Your task to perform on an android device: Go to Wikipedia Image 0: 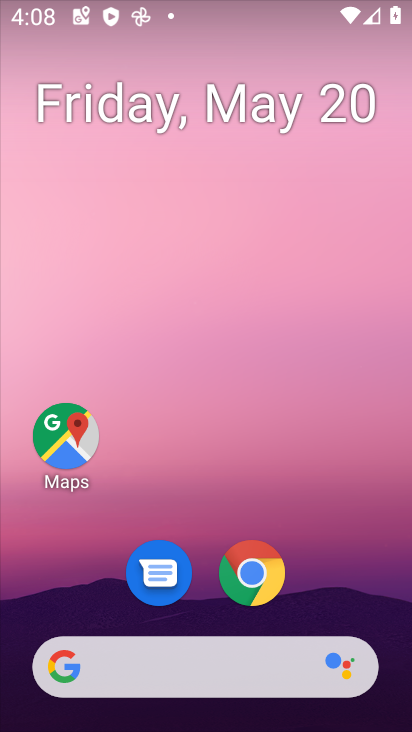
Step 0: click (252, 573)
Your task to perform on an android device: Go to Wikipedia Image 1: 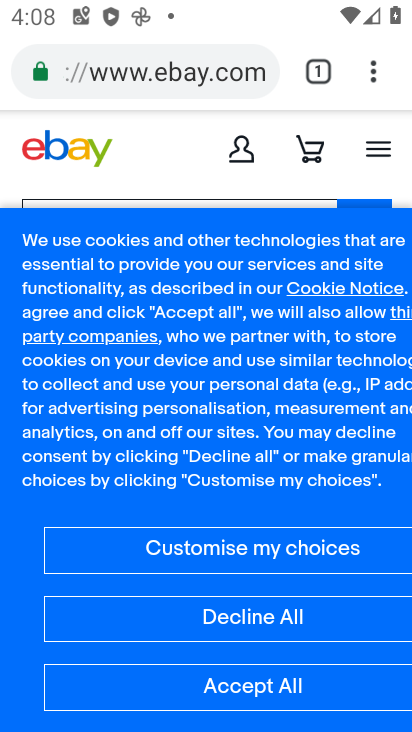
Step 1: click (171, 68)
Your task to perform on an android device: Go to Wikipedia Image 2: 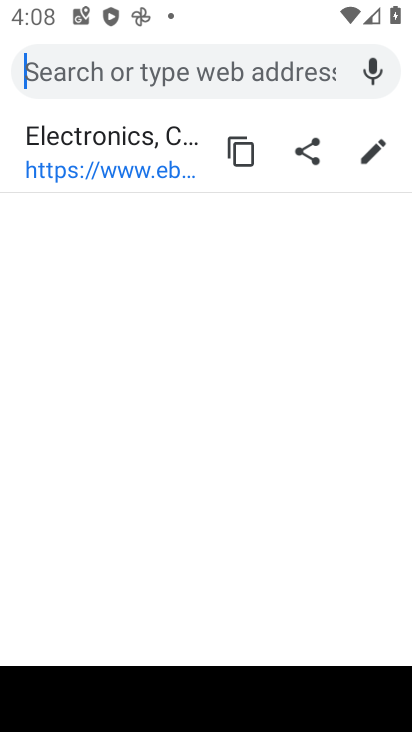
Step 2: type "wikipedia"
Your task to perform on an android device: Go to Wikipedia Image 3: 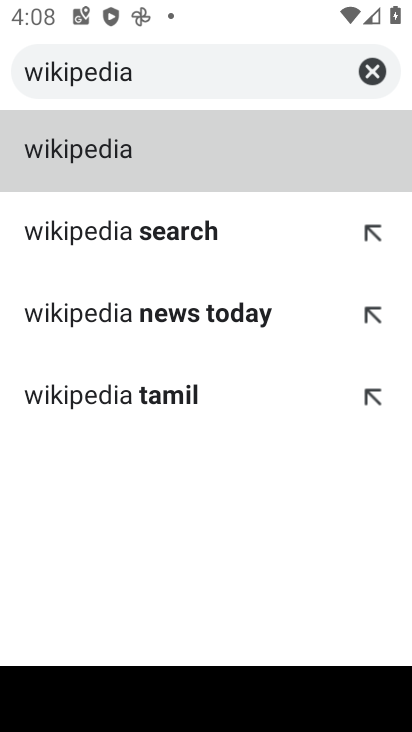
Step 3: click (64, 144)
Your task to perform on an android device: Go to Wikipedia Image 4: 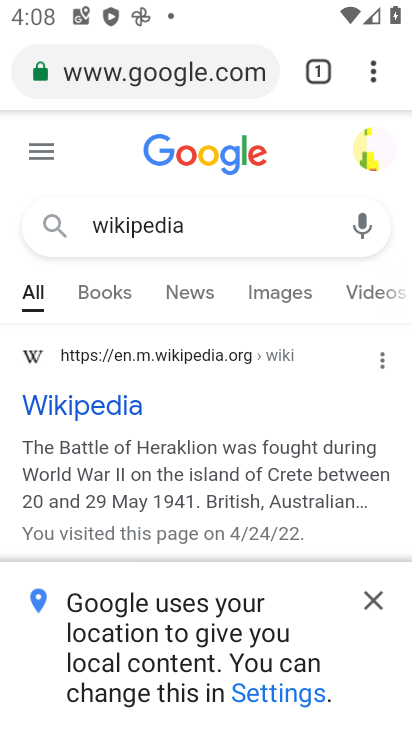
Step 4: click (370, 596)
Your task to perform on an android device: Go to Wikipedia Image 5: 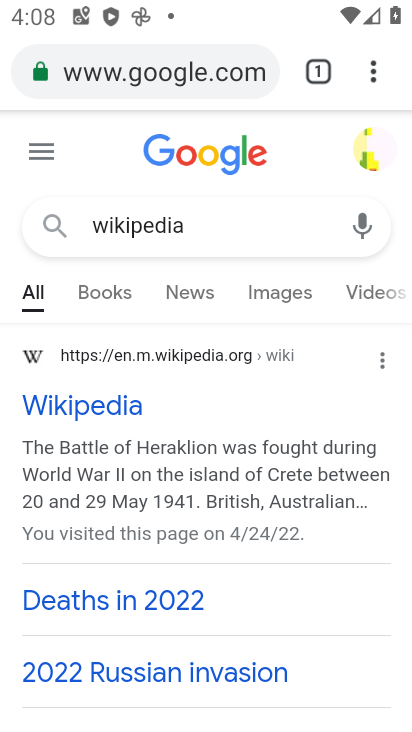
Step 5: click (67, 411)
Your task to perform on an android device: Go to Wikipedia Image 6: 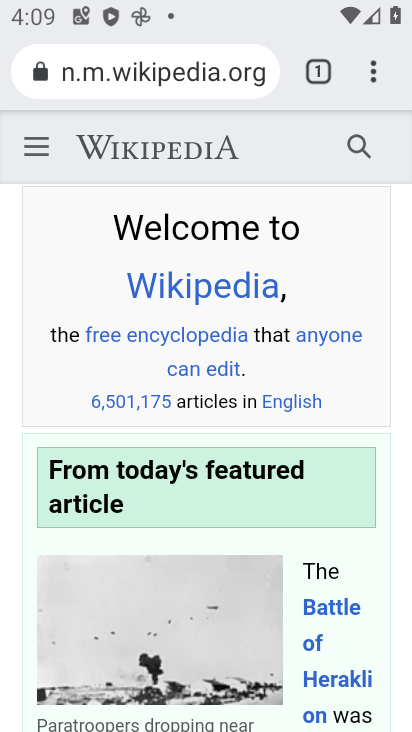
Step 6: task complete